Your task to perform on an android device: Do I have any events this weekend? Image 0: 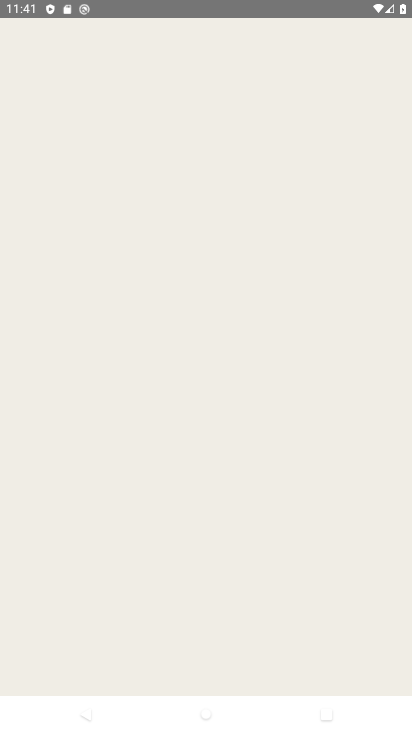
Step 0: press home button
Your task to perform on an android device: Do I have any events this weekend? Image 1: 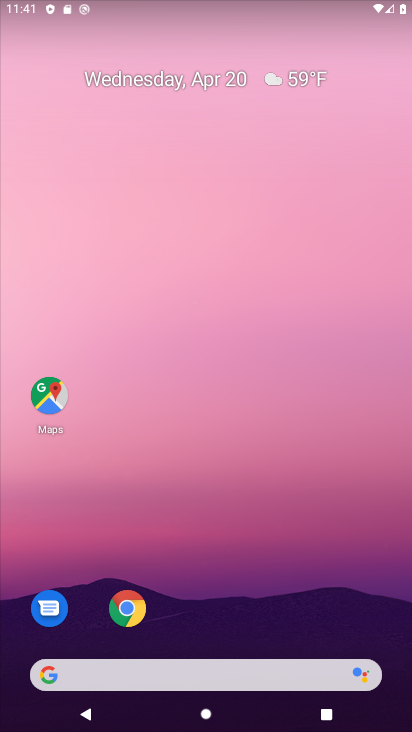
Step 1: drag from (237, 580) to (217, 105)
Your task to perform on an android device: Do I have any events this weekend? Image 2: 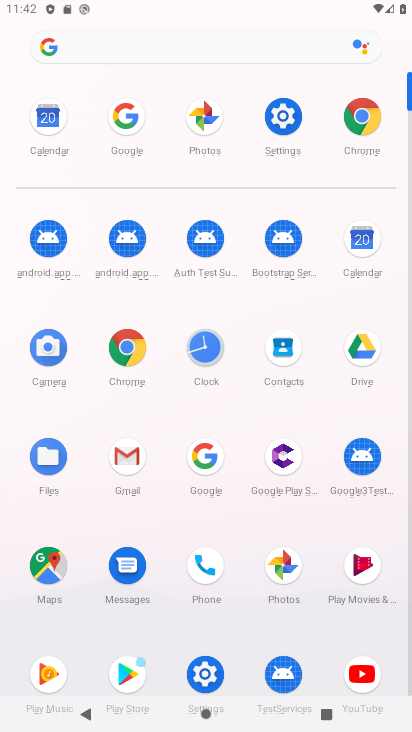
Step 2: click (361, 239)
Your task to perform on an android device: Do I have any events this weekend? Image 3: 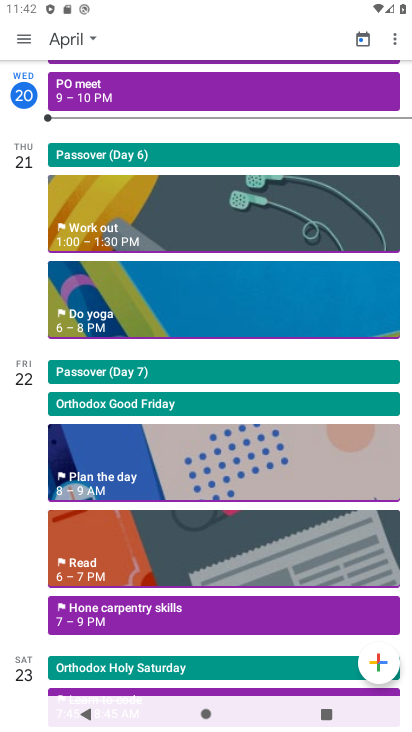
Step 3: click (94, 37)
Your task to perform on an android device: Do I have any events this weekend? Image 4: 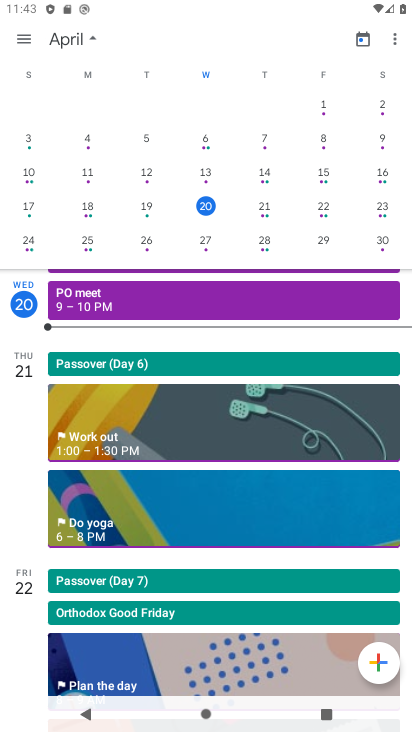
Step 4: task complete